Your task to perform on an android device: turn notification dots off Image 0: 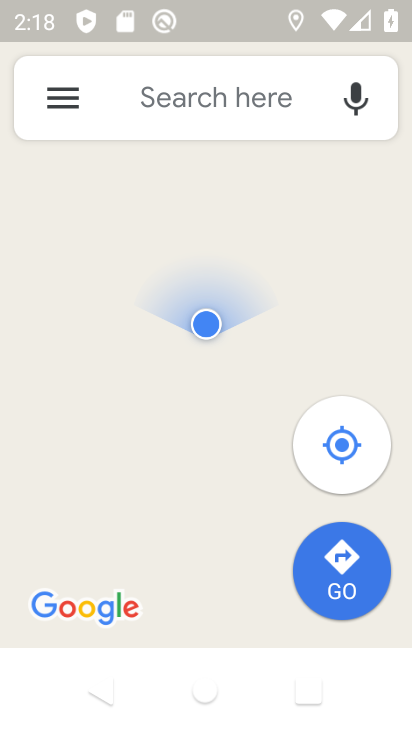
Step 0: press home button
Your task to perform on an android device: turn notification dots off Image 1: 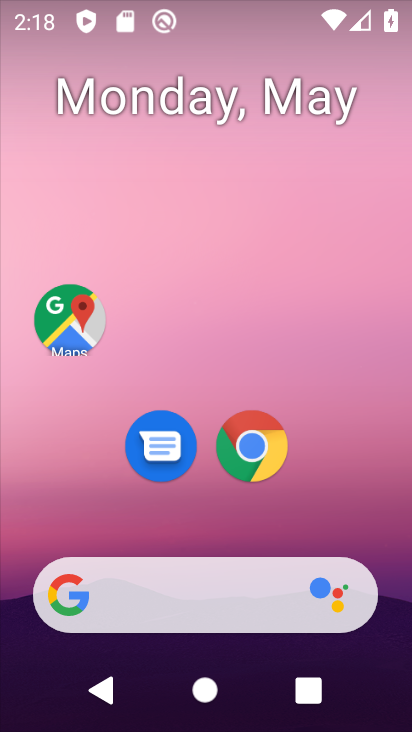
Step 1: drag from (208, 534) to (188, 198)
Your task to perform on an android device: turn notification dots off Image 2: 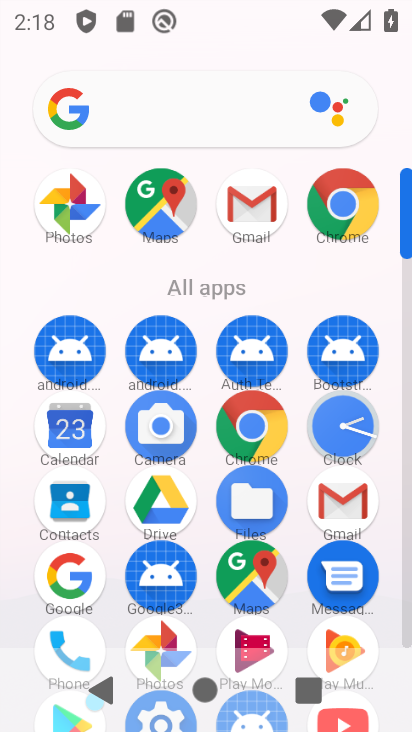
Step 2: drag from (114, 571) to (139, 266)
Your task to perform on an android device: turn notification dots off Image 3: 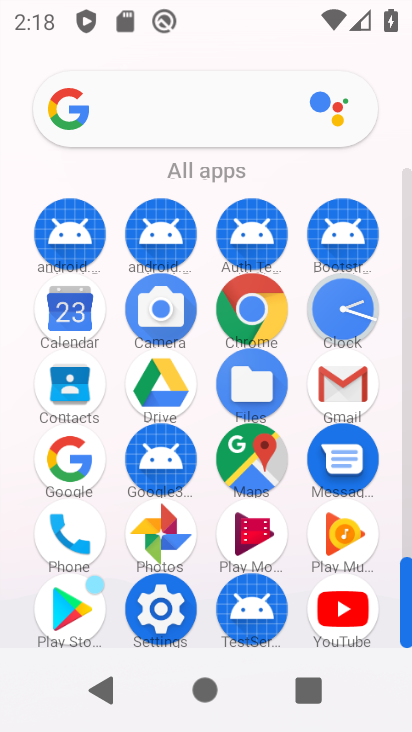
Step 3: click (158, 601)
Your task to perform on an android device: turn notification dots off Image 4: 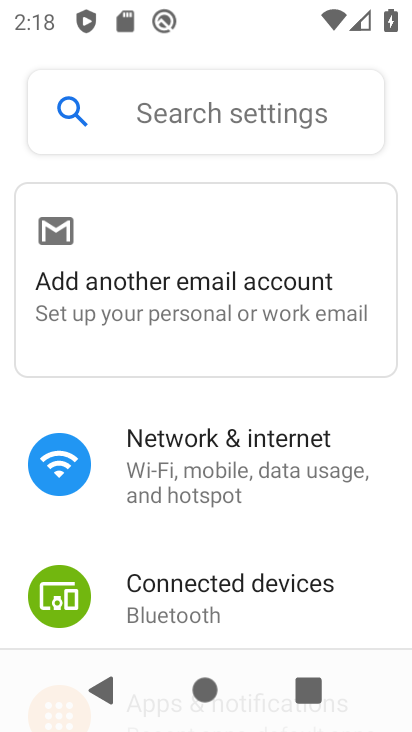
Step 4: drag from (205, 522) to (228, 397)
Your task to perform on an android device: turn notification dots off Image 5: 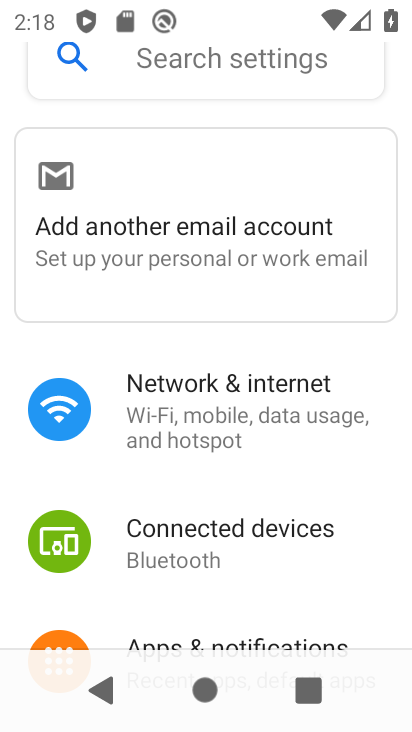
Step 5: click (228, 397)
Your task to perform on an android device: turn notification dots off Image 6: 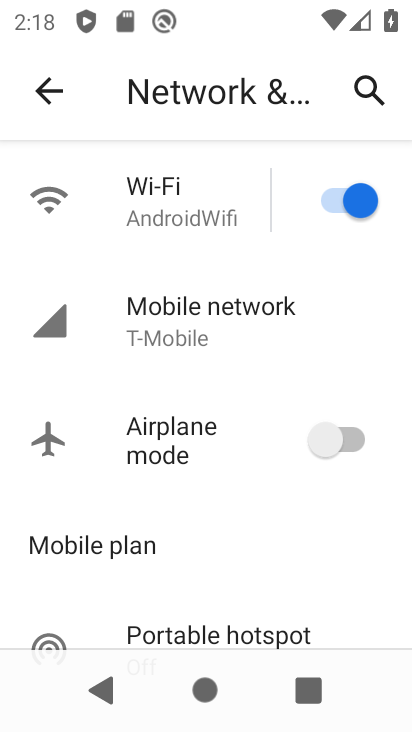
Step 6: drag from (226, 578) to (274, 353)
Your task to perform on an android device: turn notification dots off Image 7: 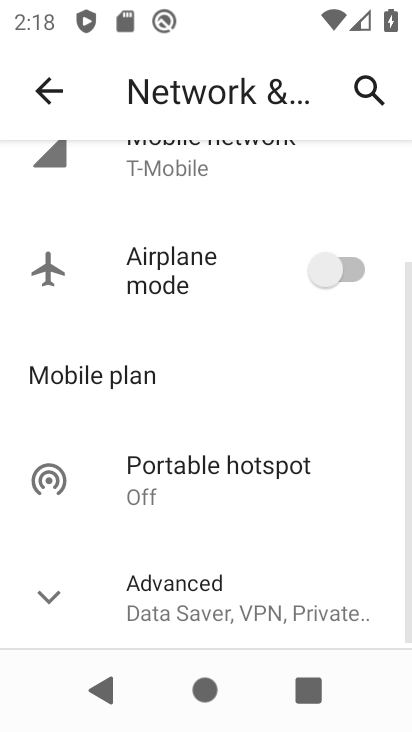
Step 7: drag from (240, 552) to (255, 399)
Your task to perform on an android device: turn notification dots off Image 8: 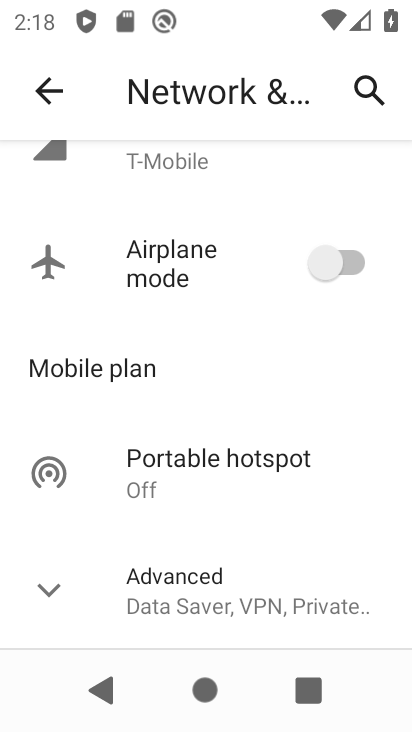
Step 8: drag from (223, 572) to (259, 300)
Your task to perform on an android device: turn notification dots off Image 9: 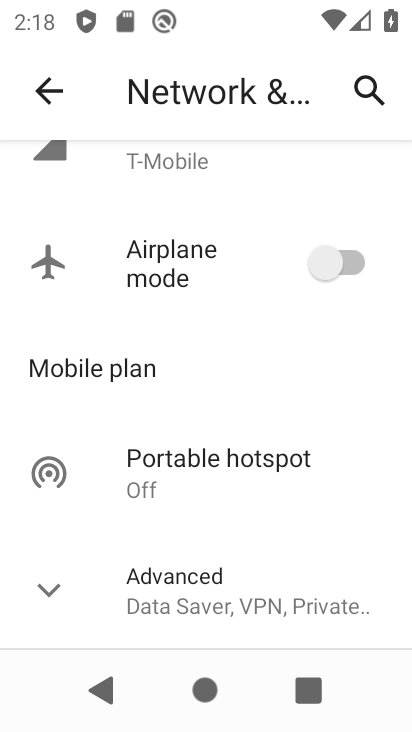
Step 9: click (48, 106)
Your task to perform on an android device: turn notification dots off Image 10: 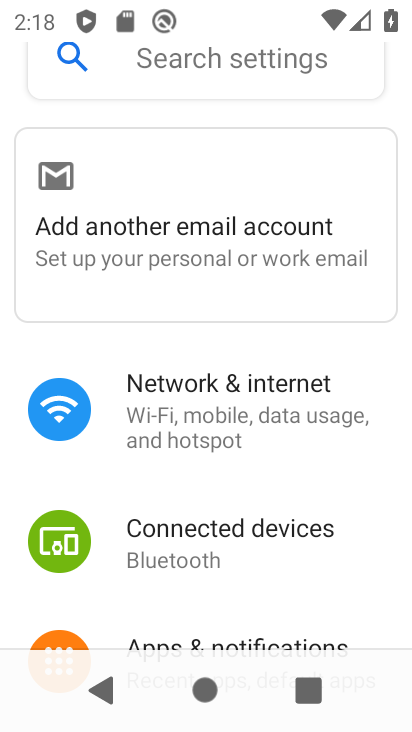
Step 10: drag from (252, 554) to (267, 349)
Your task to perform on an android device: turn notification dots off Image 11: 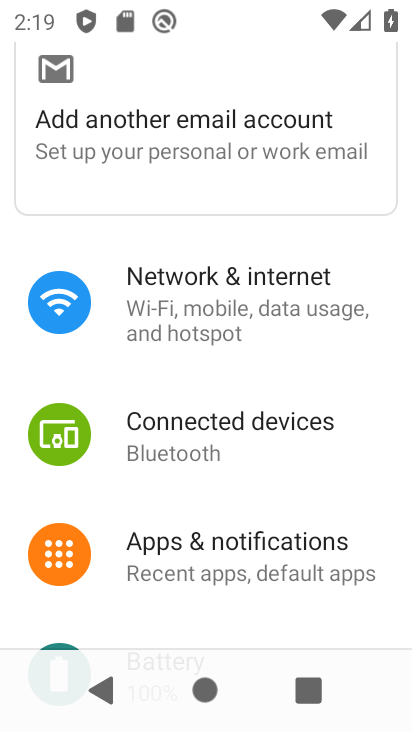
Step 11: click (258, 536)
Your task to perform on an android device: turn notification dots off Image 12: 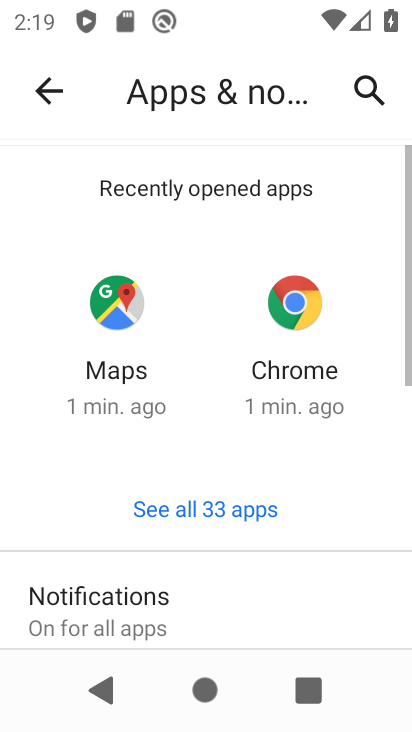
Step 12: drag from (242, 533) to (244, 256)
Your task to perform on an android device: turn notification dots off Image 13: 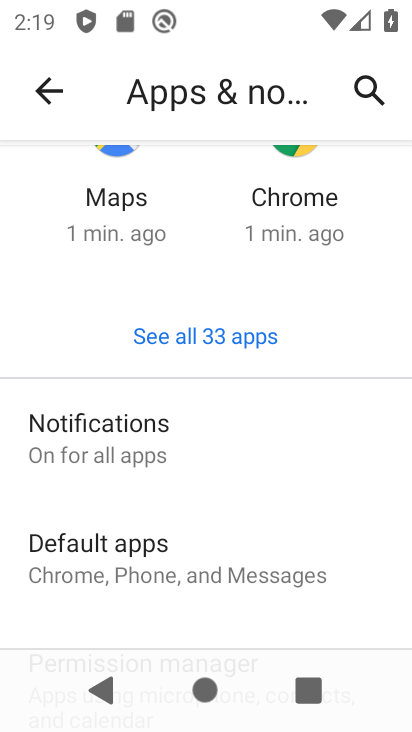
Step 13: click (183, 452)
Your task to perform on an android device: turn notification dots off Image 14: 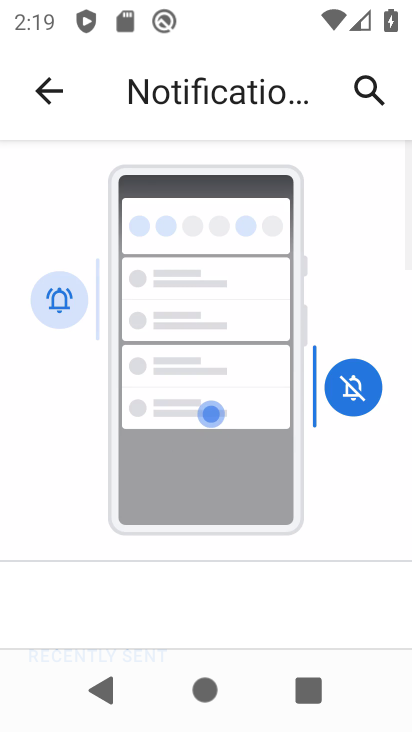
Step 14: drag from (209, 573) to (217, 281)
Your task to perform on an android device: turn notification dots off Image 15: 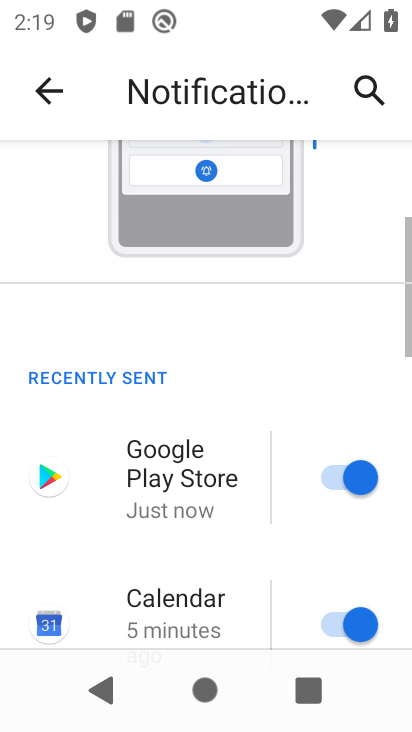
Step 15: drag from (217, 601) to (236, 299)
Your task to perform on an android device: turn notification dots off Image 16: 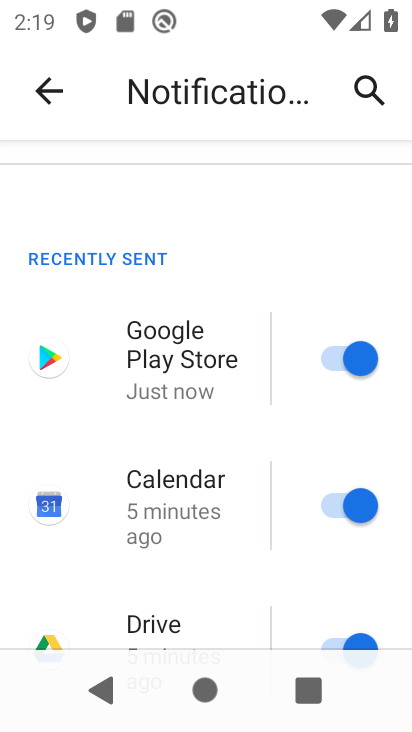
Step 16: drag from (243, 521) to (250, 279)
Your task to perform on an android device: turn notification dots off Image 17: 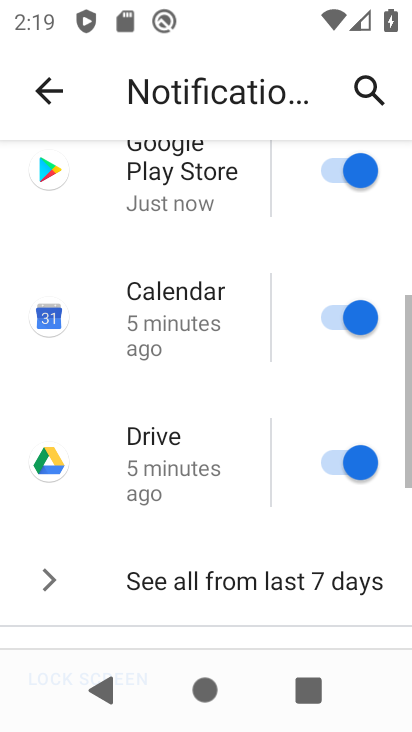
Step 17: drag from (251, 537) to (268, 313)
Your task to perform on an android device: turn notification dots off Image 18: 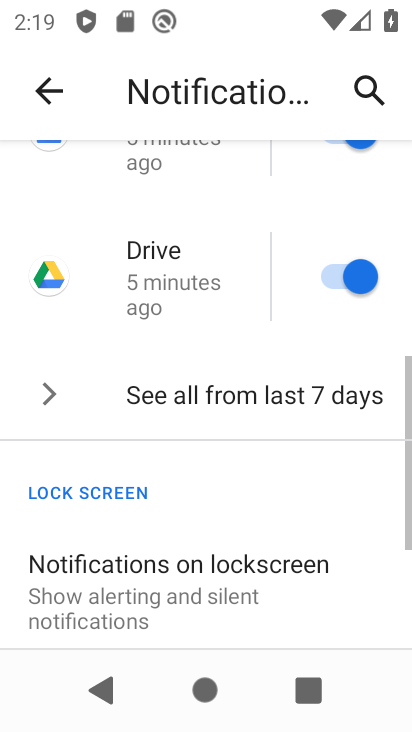
Step 18: drag from (276, 527) to (278, 364)
Your task to perform on an android device: turn notification dots off Image 19: 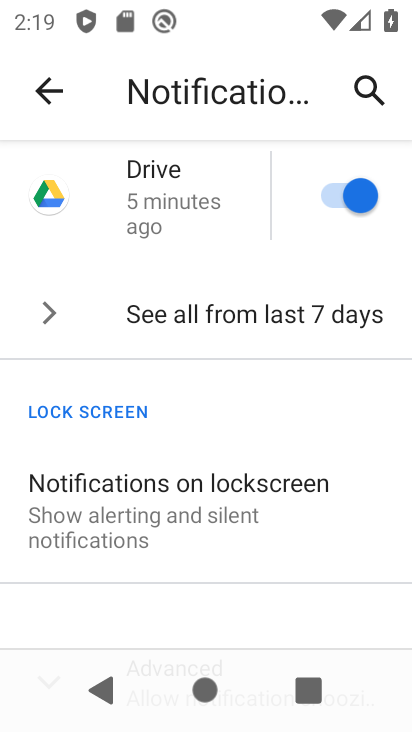
Step 19: drag from (255, 555) to (261, 412)
Your task to perform on an android device: turn notification dots off Image 20: 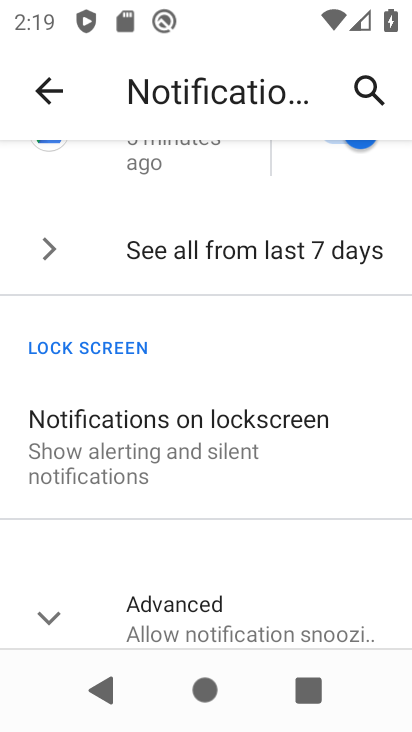
Step 20: click (226, 616)
Your task to perform on an android device: turn notification dots off Image 21: 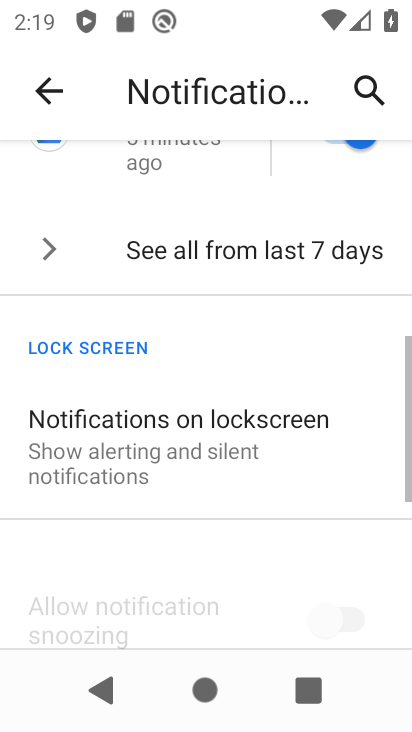
Step 21: drag from (225, 615) to (232, 396)
Your task to perform on an android device: turn notification dots off Image 22: 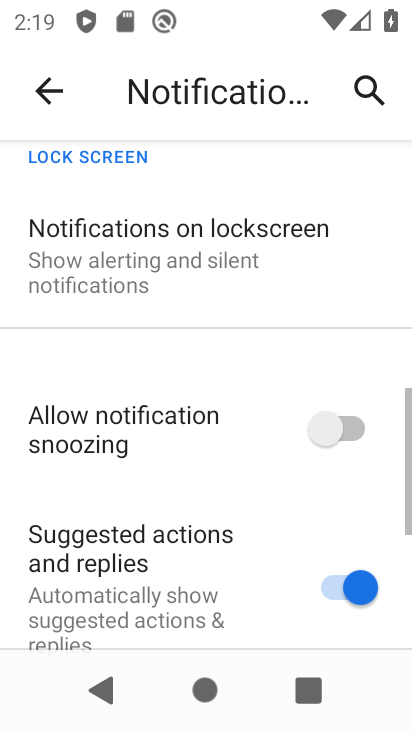
Step 22: drag from (235, 617) to (252, 425)
Your task to perform on an android device: turn notification dots off Image 23: 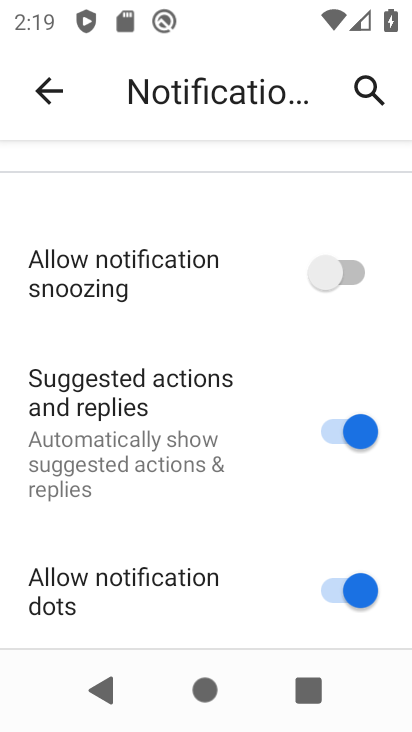
Step 23: drag from (248, 588) to (248, 447)
Your task to perform on an android device: turn notification dots off Image 24: 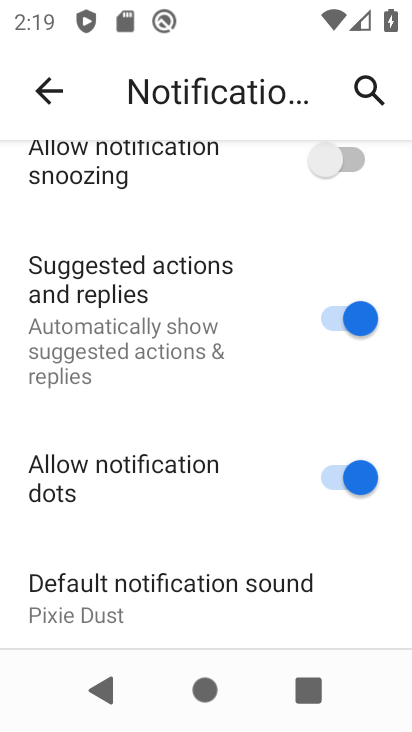
Step 24: click (340, 470)
Your task to perform on an android device: turn notification dots off Image 25: 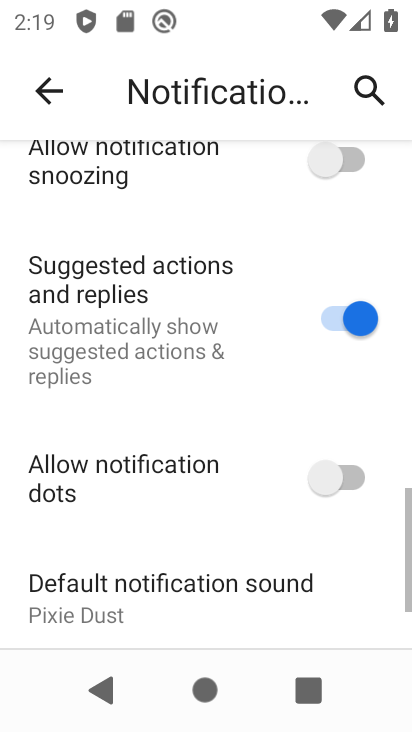
Step 25: task complete